Your task to perform on an android device: Show me popular games on the Play Store Image 0: 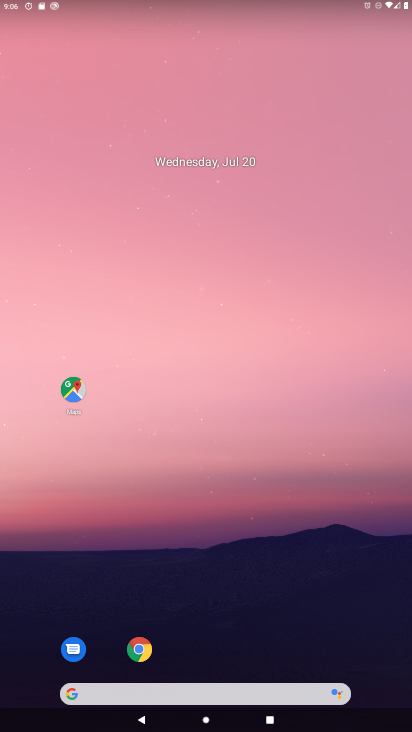
Step 0: drag from (203, 690) to (210, 76)
Your task to perform on an android device: Show me popular games on the Play Store Image 1: 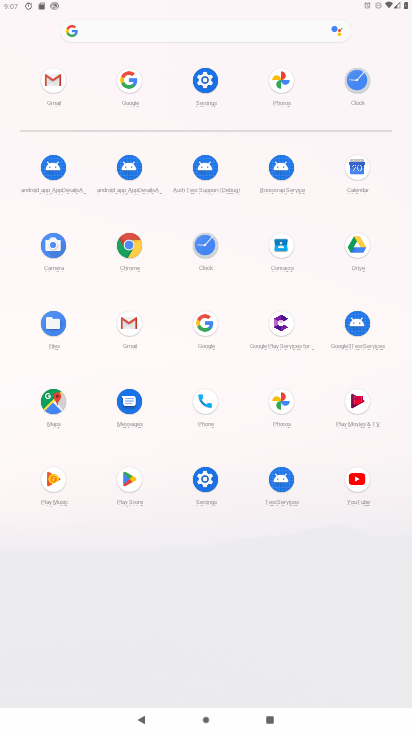
Step 1: click (131, 482)
Your task to perform on an android device: Show me popular games on the Play Store Image 2: 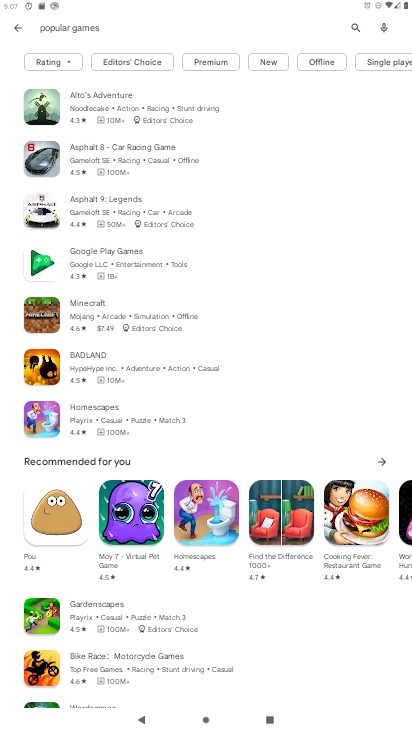
Step 2: click (333, 28)
Your task to perform on an android device: Show me popular games on the Play Store Image 3: 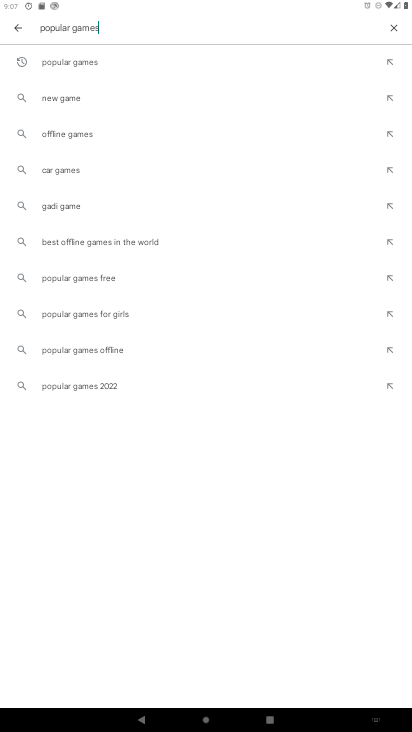
Step 3: click (403, 25)
Your task to perform on an android device: Show me popular games on the Play Store Image 4: 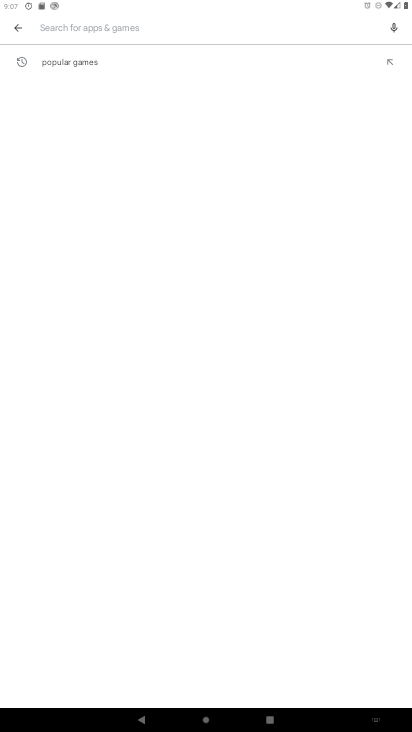
Step 4: type "popular games"
Your task to perform on an android device: Show me popular games on the Play Store Image 5: 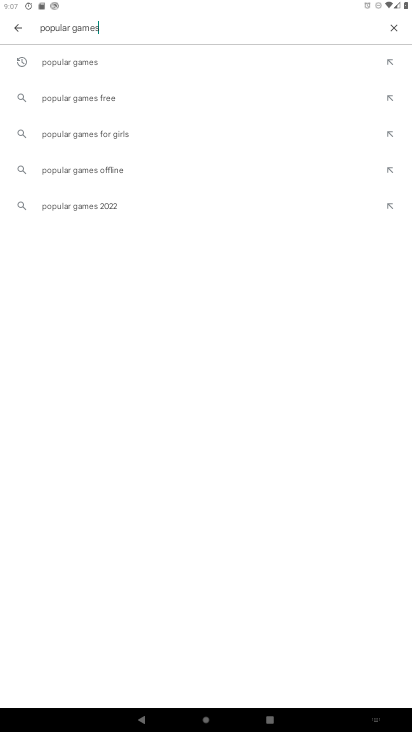
Step 5: click (85, 61)
Your task to perform on an android device: Show me popular games on the Play Store Image 6: 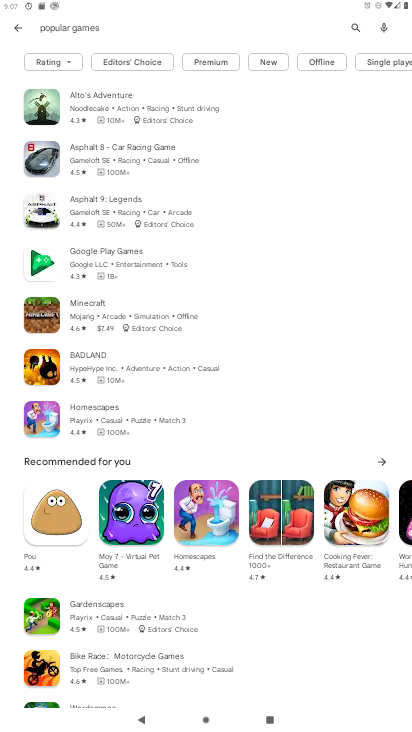
Step 6: task complete